Your task to perform on an android device: delete browsing data in the chrome app Image 0: 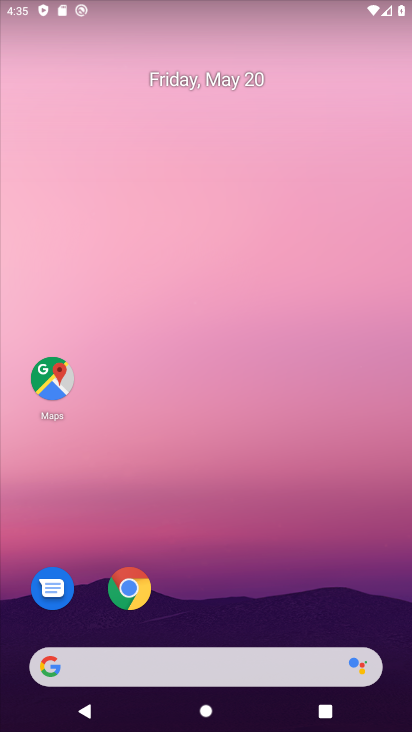
Step 0: click (141, 587)
Your task to perform on an android device: delete browsing data in the chrome app Image 1: 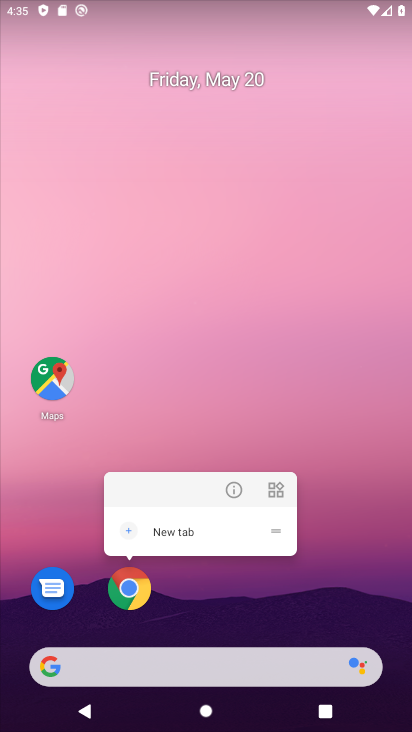
Step 1: click (121, 593)
Your task to perform on an android device: delete browsing data in the chrome app Image 2: 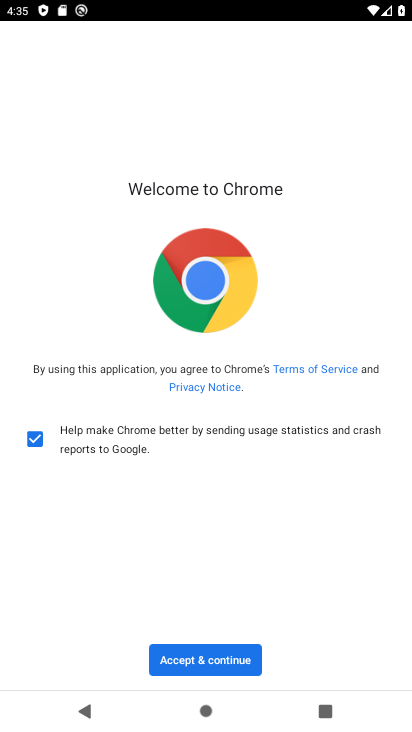
Step 2: click (173, 658)
Your task to perform on an android device: delete browsing data in the chrome app Image 3: 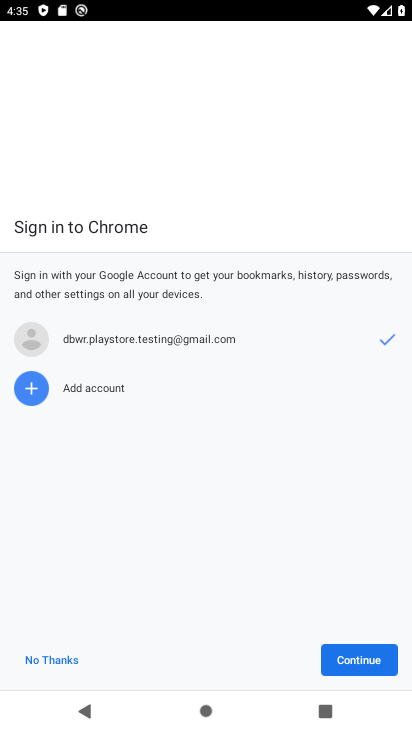
Step 3: click (382, 656)
Your task to perform on an android device: delete browsing data in the chrome app Image 4: 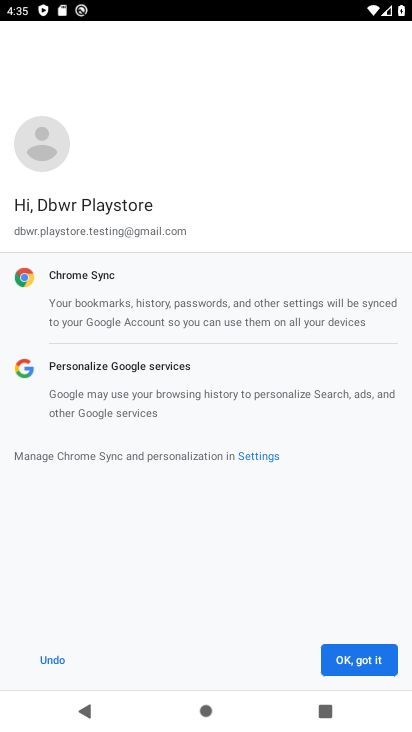
Step 4: click (371, 665)
Your task to perform on an android device: delete browsing data in the chrome app Image 5: 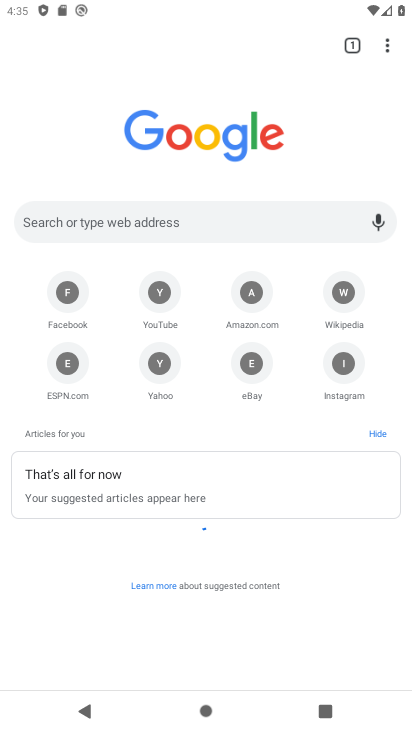
Step 5: click (389, 55)
Your task to perform on an android device: delete browsing data in the chrome app Image 6: 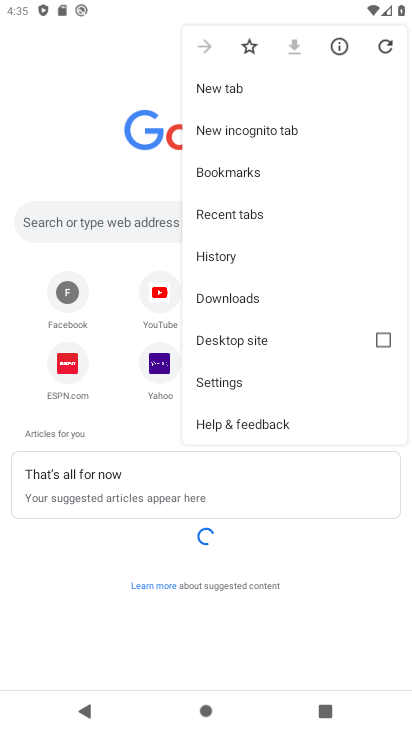
Step 6: click (239, 268)
Your task to perform on an android device: delete browsing data in the chrome app Image 7: 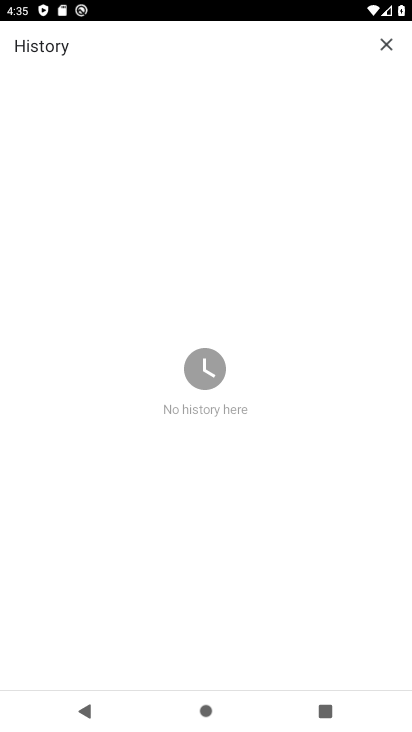
Step 7: click (222, 124)
Your task to perform on an android device: delete browsing data in the chrome app Image 8: 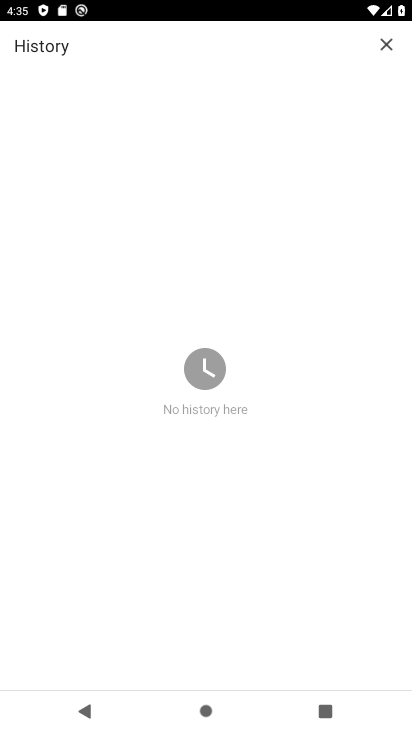
Step 8: task complete